Your task to perform on an android device: Open display settings Image 0: 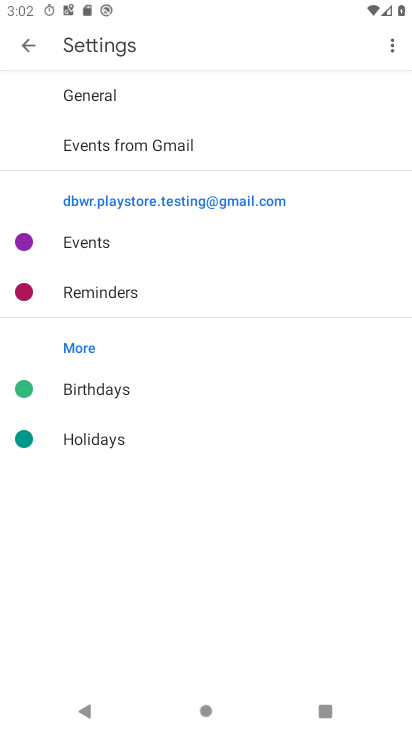
Step 0: press home button
Your task to perform on an android device: Open display settings Image 1: 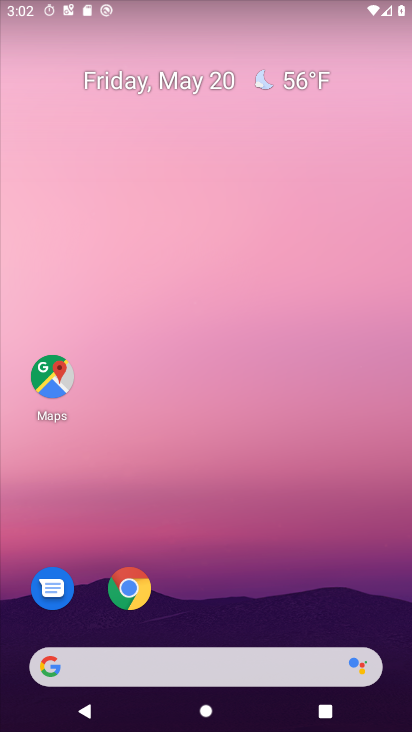
Step 1: drag from (14, 556) to (122, 197)
Your task to perform on an android device: Open display settings Image 2: 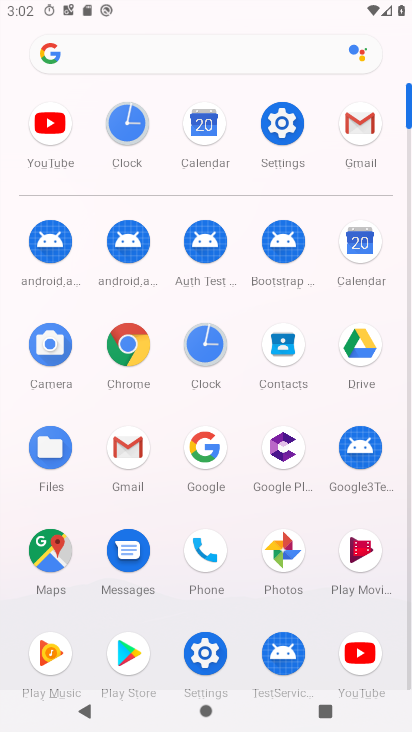
Step 2: click (303, 108)
Your task to perform on an android device: Open display settings Image 3: 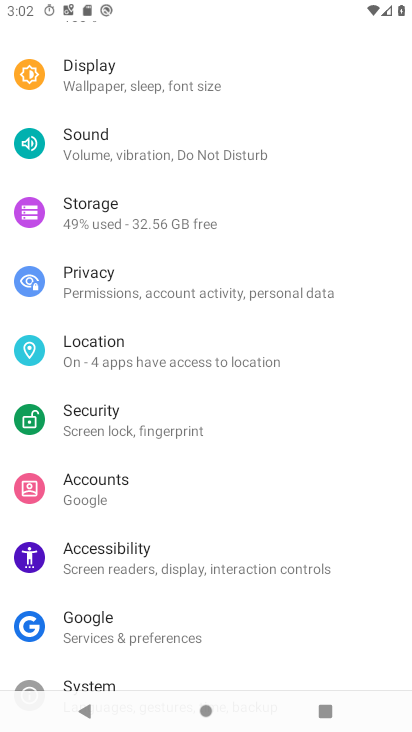
Step 3: click (110, 73)
Your task to perform on an android device: Open display settings Image 4: 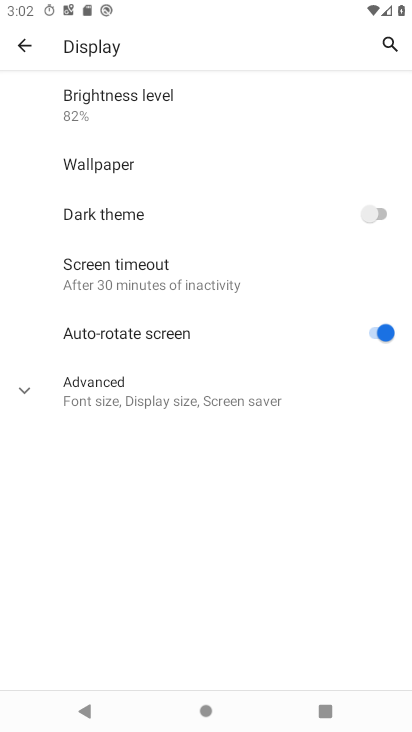
Step 4: task complete